Your task to perform on an android device: install app "Upside-Cash back on gas & food" Image 0: 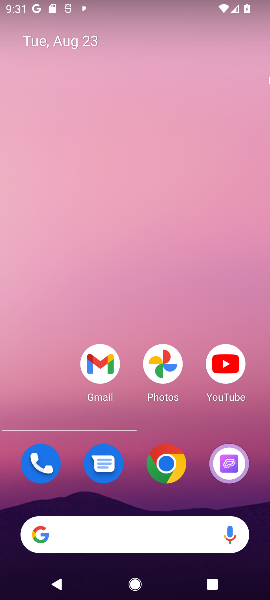
Step 0: press home button
Your task to perform on an android device: install app "Upside-Cash back on gas & food" Image 1: 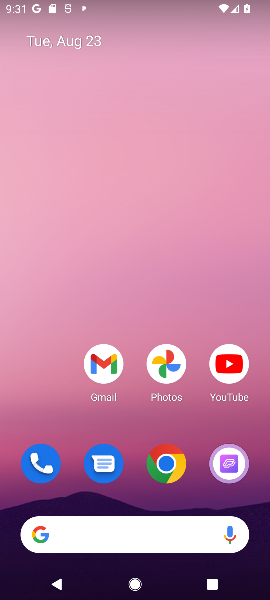
Step 1: drag from (141, 497) to (200, 35)
Your task to perform on an android device: install app "Upside-Cash back on gas & food" Image 2: 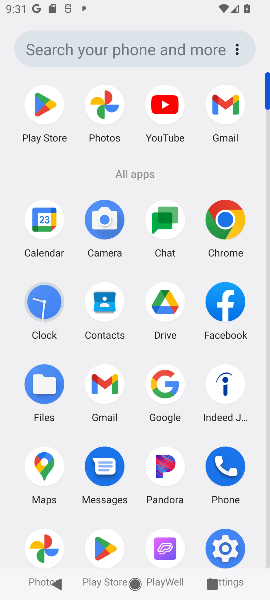
Step 2: click (41, 98)
Your task to perform on an android device: install app "Upside-Cash back on gas & food" Image 3: 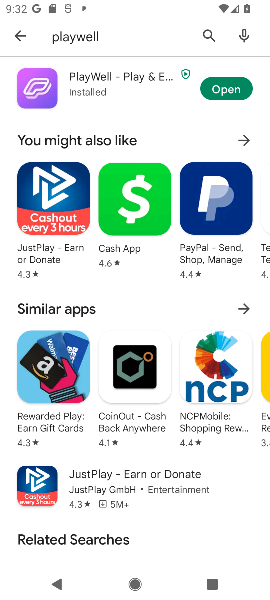
Step 3: click (209, 33)
Your task to perform on an android device: install app "Upside-Cash back on gas & food" Image 4: 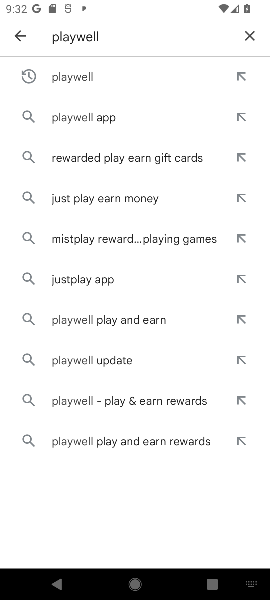
Step 4: click (251, 42)
Your task to perform on an android device: install app "Upside-Cash back on gas & food" Image 5: 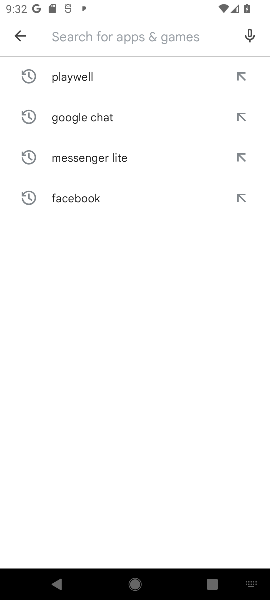
Step 5: type "Upside-Cash back on gas & food"
Your task to perform on an android device: install app "Upside-Cash back on gas & food" Image 6: 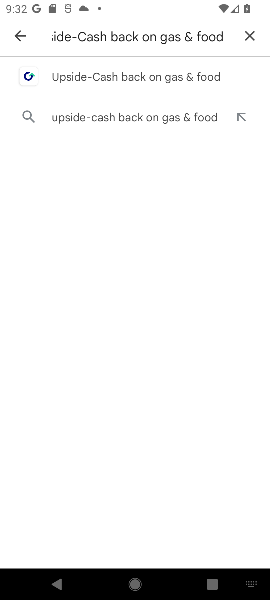
Step 6: click (177, 85)
Your task to perform on an android device: install app "Upside-Cash back on gas & food" Image 7: 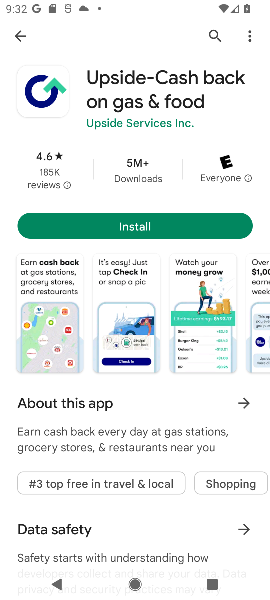
Step 7: click (120, 223)
Your task to perform on an android device: install app "Upside-Cash back on gas & food" Image 8: 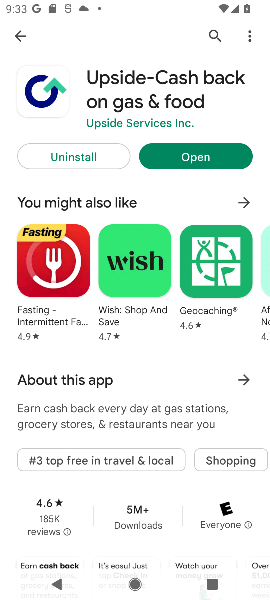
Step 8: click (190, 151)
Your task to perform on an android device: install app "Upside-Cash back on gas & food" Image 9: 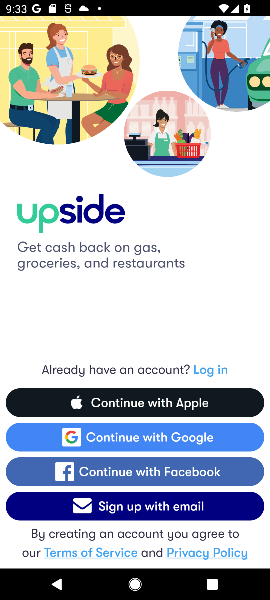
Step 9: click (128, 434)
Your task to perform on an android device: install app "Upside-Cash back on gas & food" Image 10: 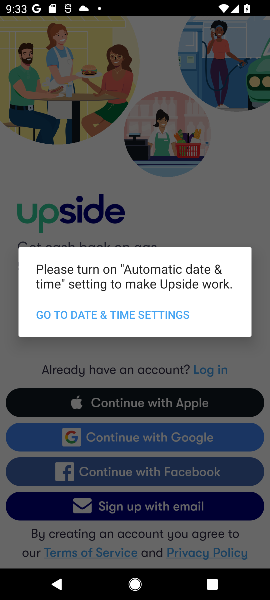
Step 10: click (101, 314)
Your task to perform on an android device: install app "Upside-Cash back on gas & food" Image 11: 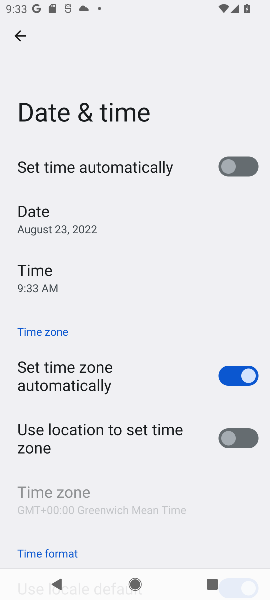
Step 11: click (222, 167)
Your task to perform on an android device: install app "Upside-Cash back on gas & food" Image 12: 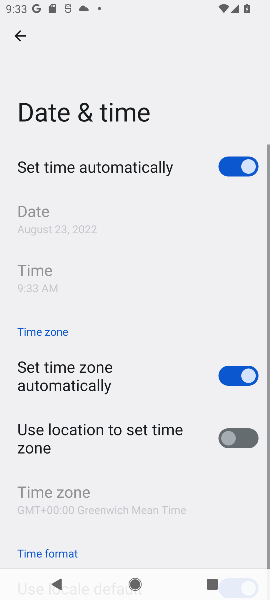
Step 12: click (18, 39)
Your task to perform on an android device: install app "Upside-Cash back on gas & food" Image 13: 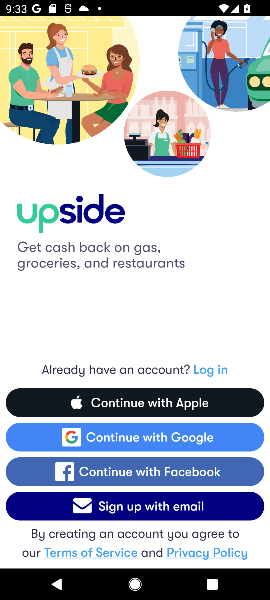
Step 13: click (148, 441)
Your task to perform on an android device: install app "Upside-Cash back on gas & food" Image 14: 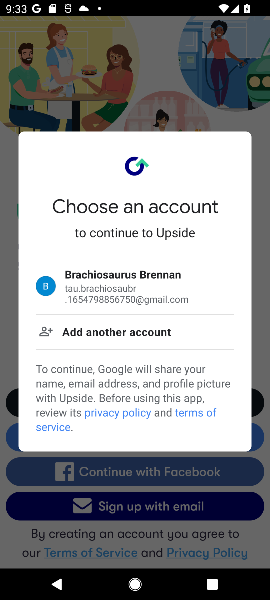
Step 14: click (101, 287)
Your task to perform on an android device: install app "Upside-Cash back on gas & food" Image 15: 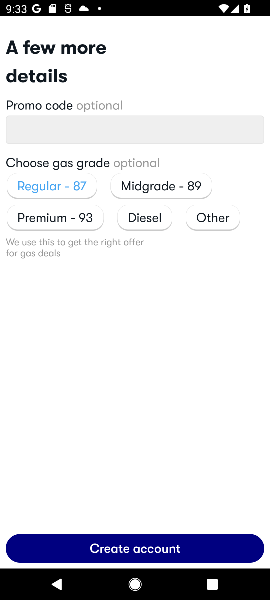
Step 15: task complete